Your task to perform on an android device: What's the weather going to be this weekend? Image 0: 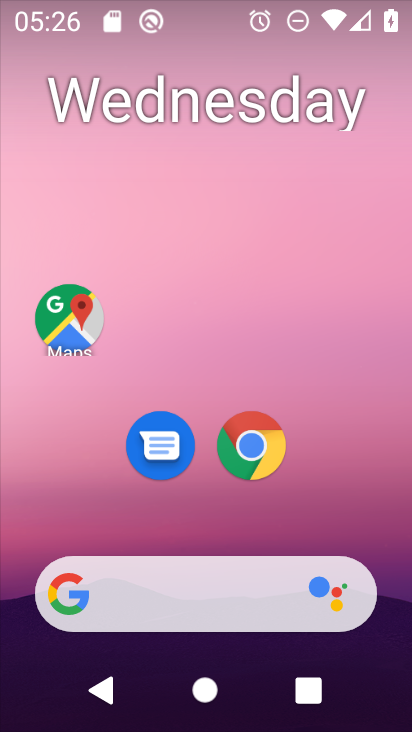
Step 0: click (184, 601)
Your task to perform on an android device: What's the weather going to be this weekend? Image 1: 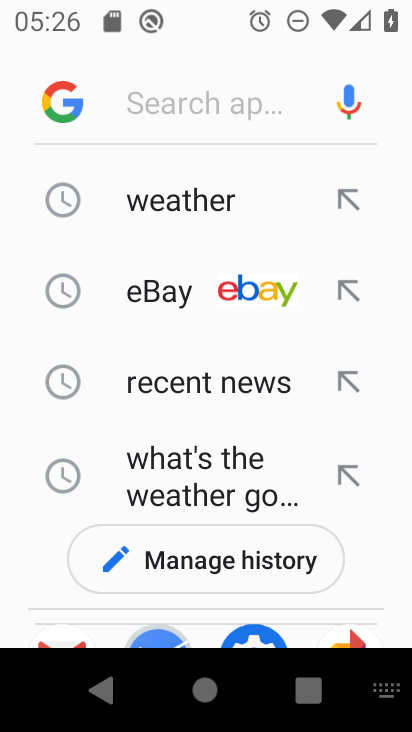
Step 1: click (224, 191)
Your task to perform on an android device: What's the weather going to be this weekend? Image 2: 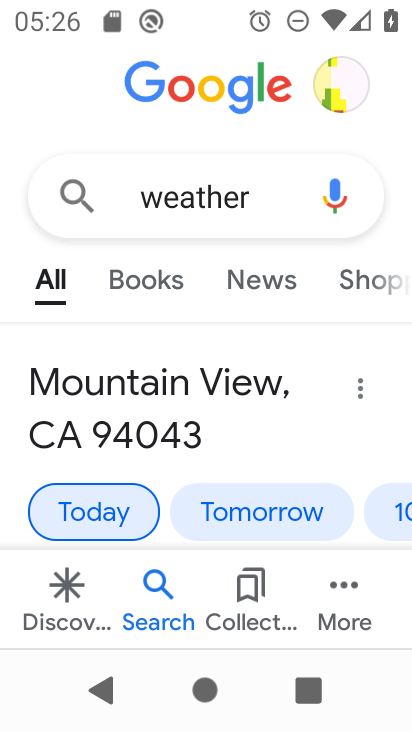
Step 2: drag from (254, 461) to (267, 23)
Your task to perform on an android device: What's the weather going to be this weekend? Image 3: 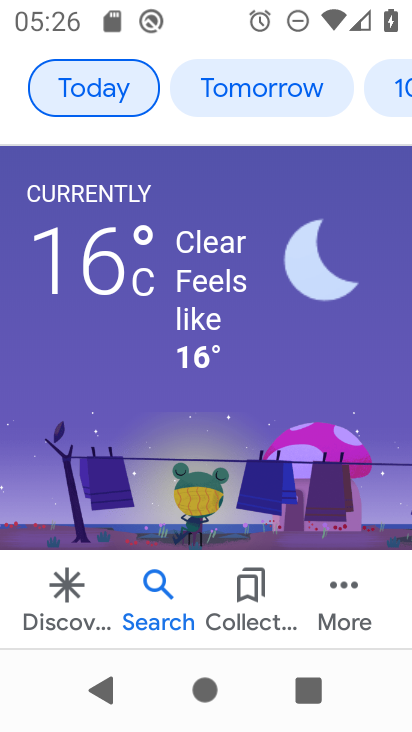
Step 3: click (385, 103)
Your task to perform on an android device: What's the weather going to be this weekend? Image 4: 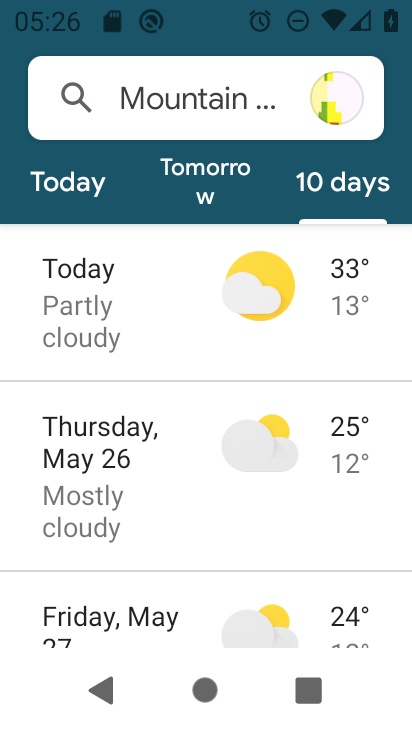
Step 4: task complete